Your task to perform on an android device: toggle data saver in the chrome app Image 0: 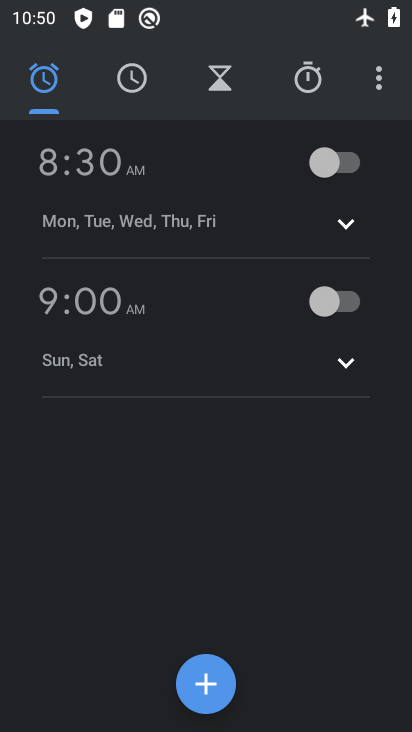
Step 0: press home button
Your task to perform on an android device: toggle data saver in the chrome app Image 1: 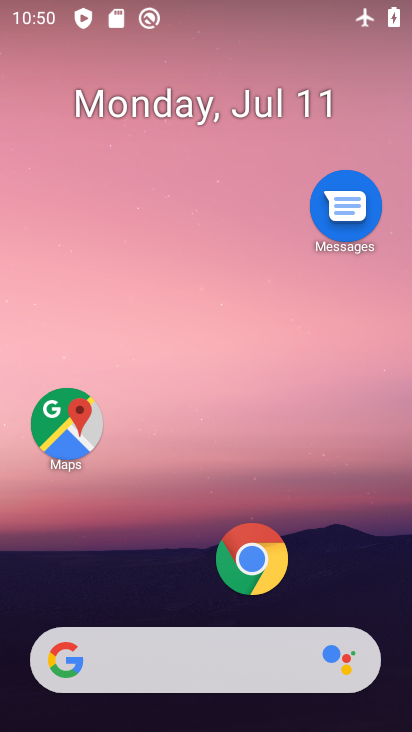
Step 1: drag from (364, 564) to (350, 188)
Your task to perform on an android device: toggle data saver in the chrome app Image 2: 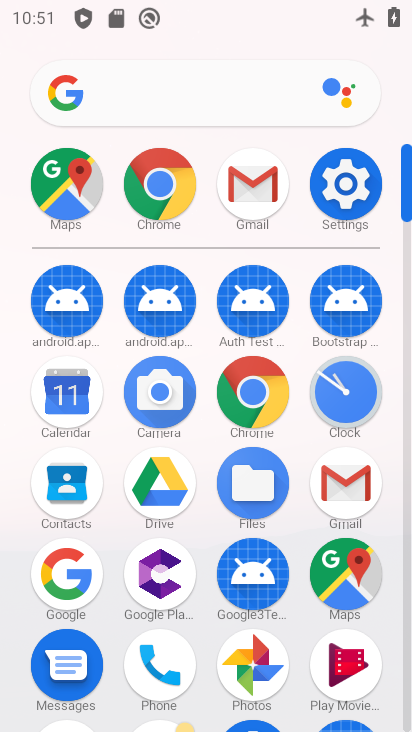
Step 2: click (259, 395)
Your task to perform on an android device: toggle data saver in the chrome app Image 3: 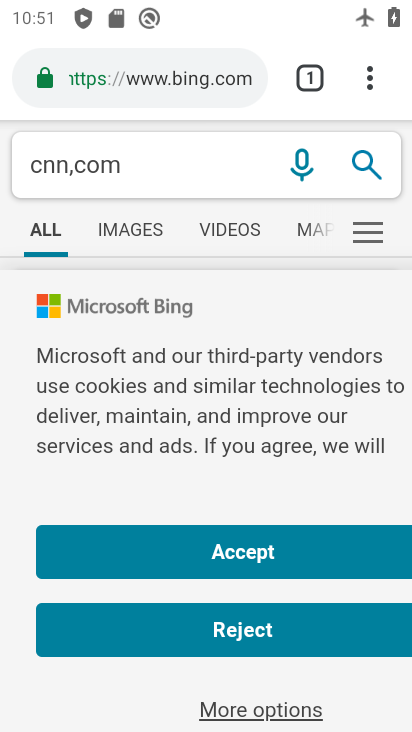
Step 3: click (368, 83)
Your task to perform on an android device: toggle data saver in the chrome app Image 4: 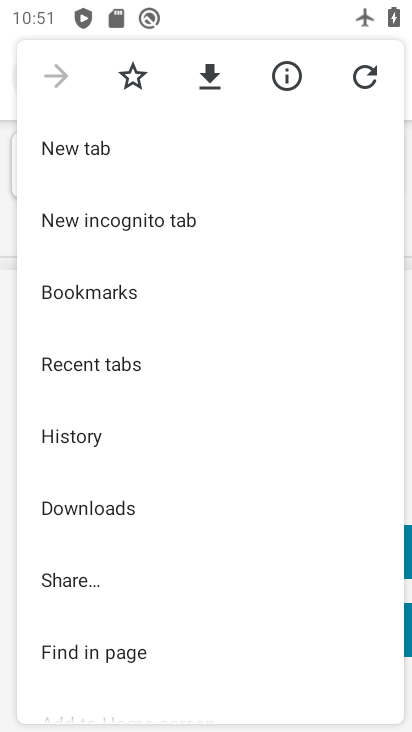
Step 4: drag from (298, 468) to (300, 360)
Your task to perform on an android device: toggle data saver in the chrome app Image 5: 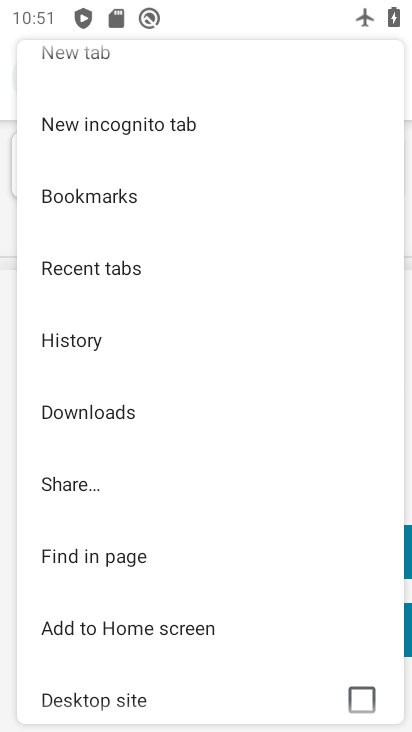
Step 5: drag from (308, 525) to (297, 318)
Your task to perform on an android device: toggle data saver in the chrome app Image 6: 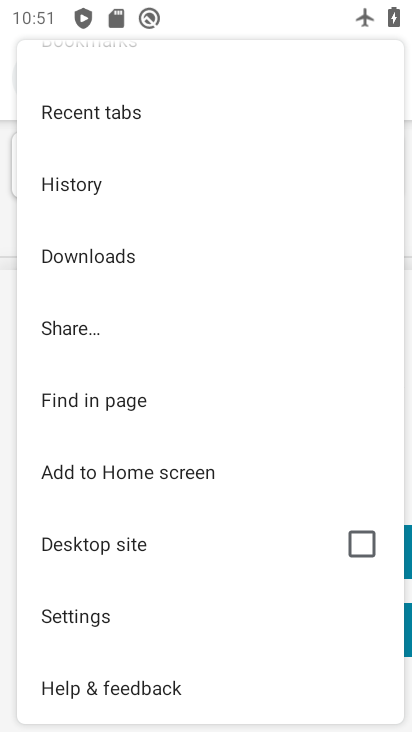
Step 6: click (101, 616)
Your task to perform on an android device: toggle data saver in the chrome app Image 7: 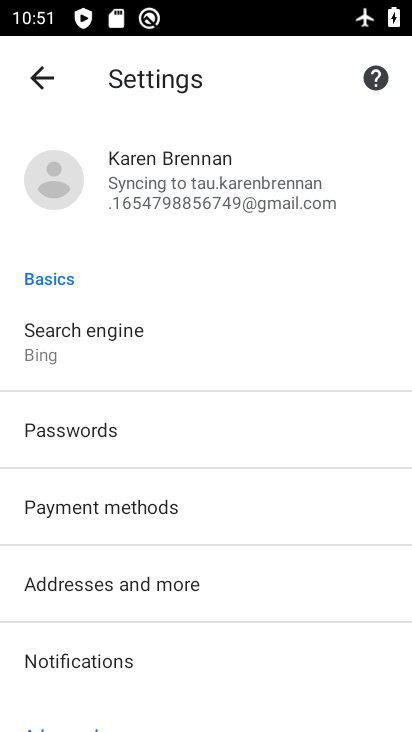
Step 7: drag from (298, 588) to (318, 443)
Your task to perform on an android device: toggle data saver in the chrome app Image 8: 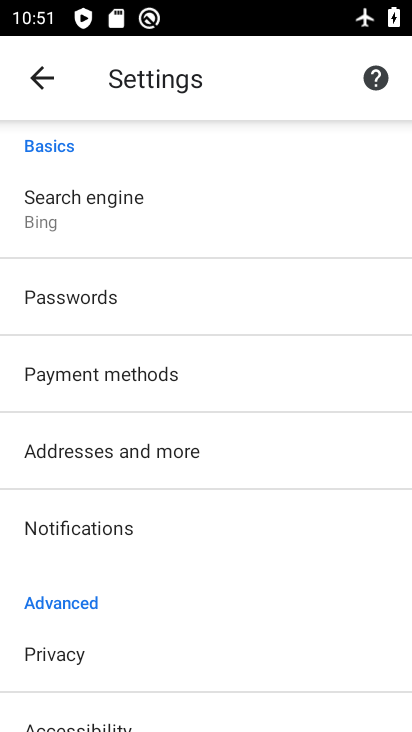
Step 8: drag from (327, 570) to (321, 466)
Your task to perform on an android device: toggle data saver in the chrome app Image 9: 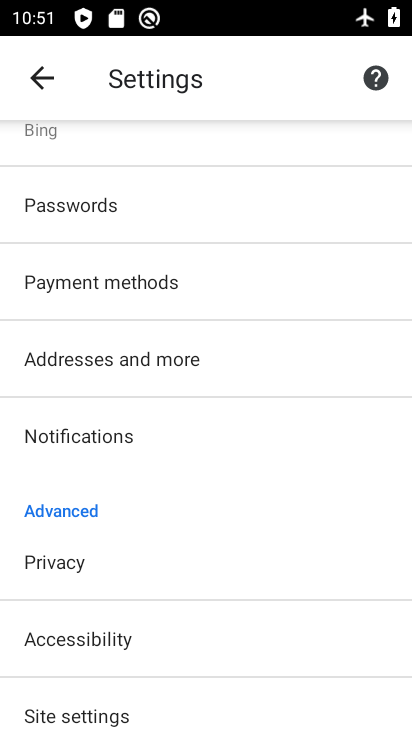
Step 9: drag from (318, 572) to (292, 410)
Your task to perform on an android device: toggle data saver in the chrome app Image 10: 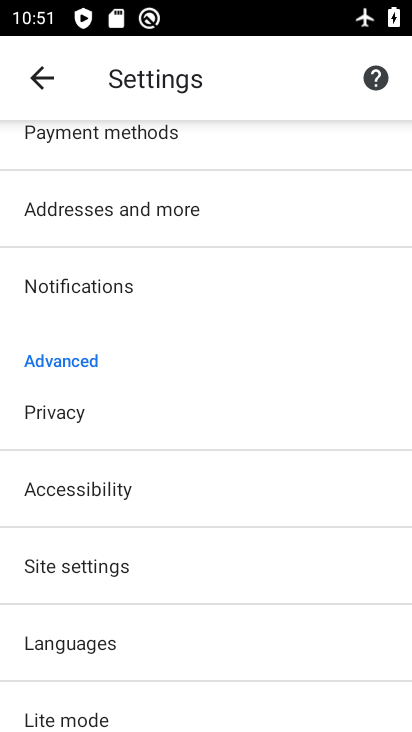
Step 10: drag from (283, 579) to (268, 446)
Your task to perform on an android device: toggle data saver in the chrome app Image 11: 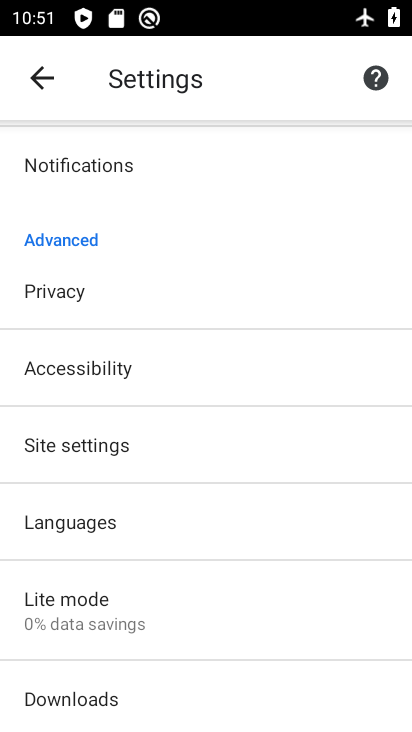
Step 11: drag from (287, 588) to (275, 444)
Your task to perform on an android device: toggle data saver in the chrome app Image 12: 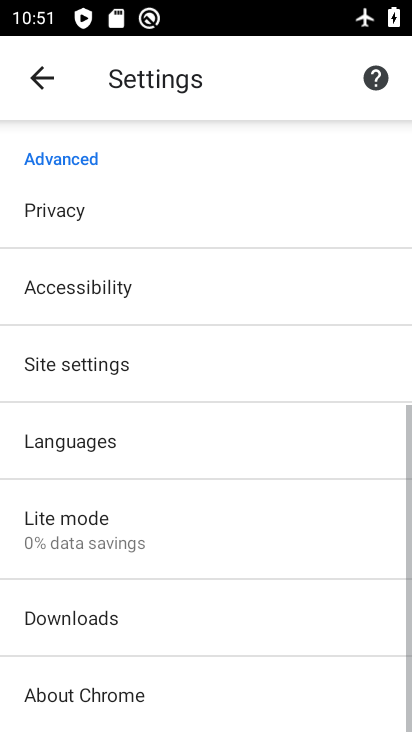
Step 12: click (261, 537)
Your task to perform on an android device: toggle data saver in the chrome app Image 13: 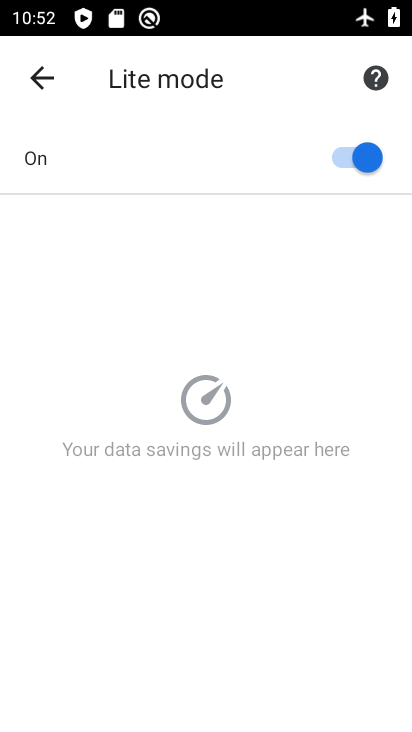
Step 13: click (351, 157)
Your task to perform on an android device: toggle data saver in the chrome app Image 14: 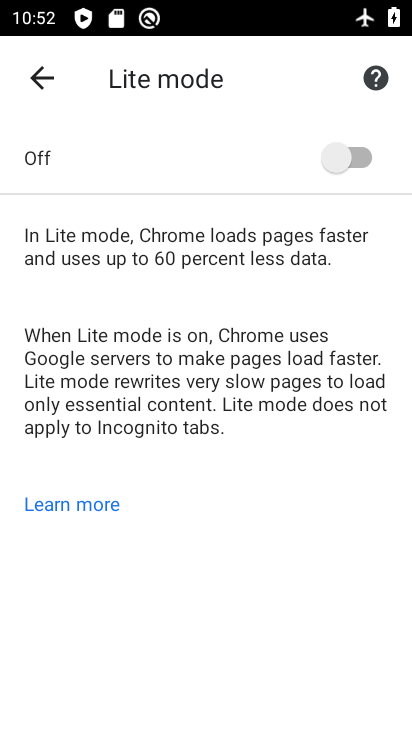
Step 14: task complete